Your task to perform on an android device: What's the weather today? Image 0: 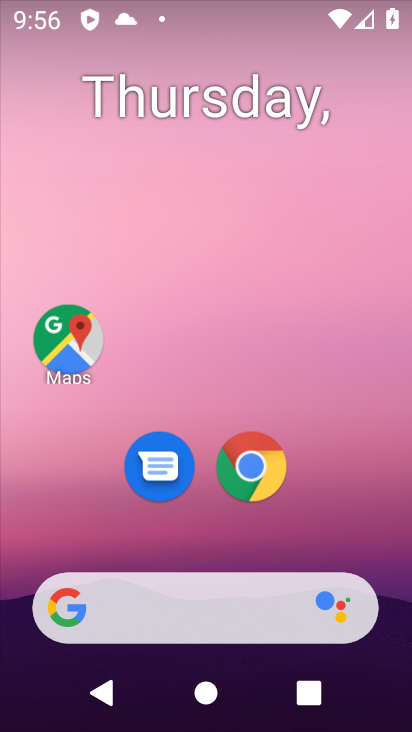
Step 0: drag from (222, 562) to (252, 117)
Your task to perform on an android device: What's the weather today? Image 1: 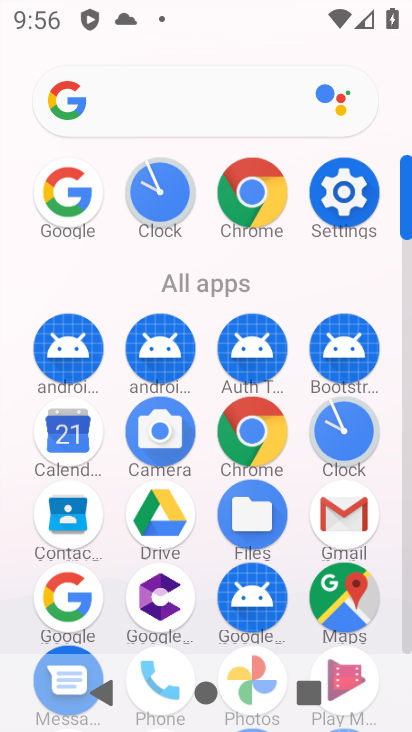
Step 1: click (72, 592)
Your task to perform on an android device: What's the weather today? Image 2: 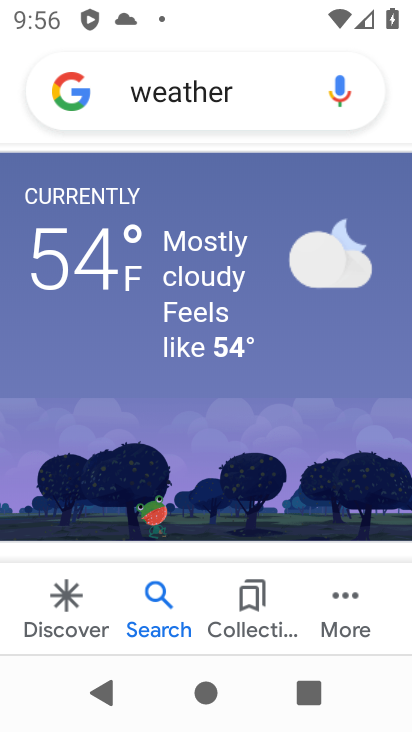
Step 2: task complete